Your task to perform on an android device: change notifications settings Image 0: 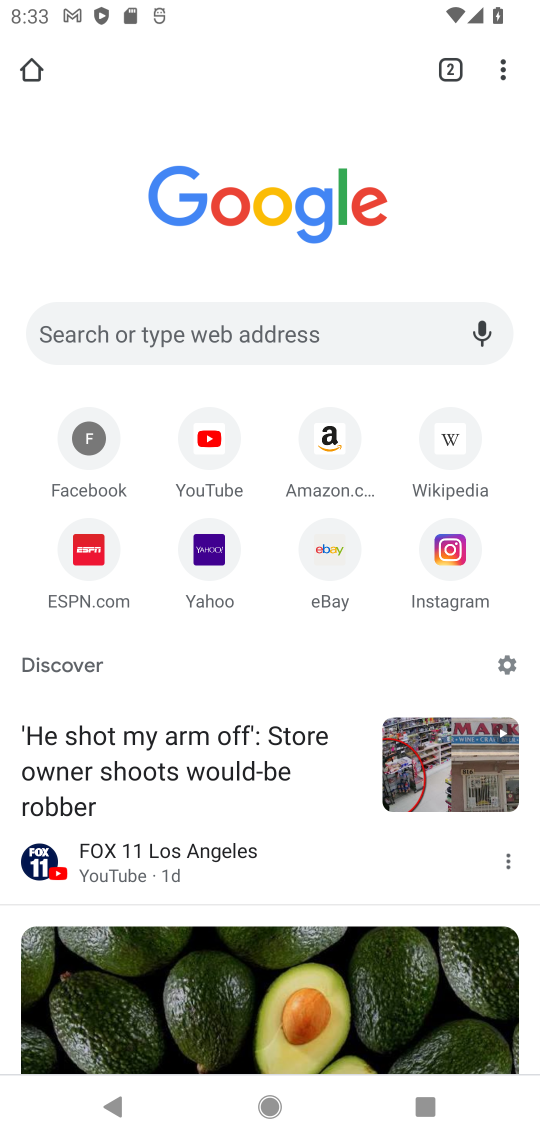
Step 0: press home button
Your task to perform on an android device: change notifications settings Image 1: 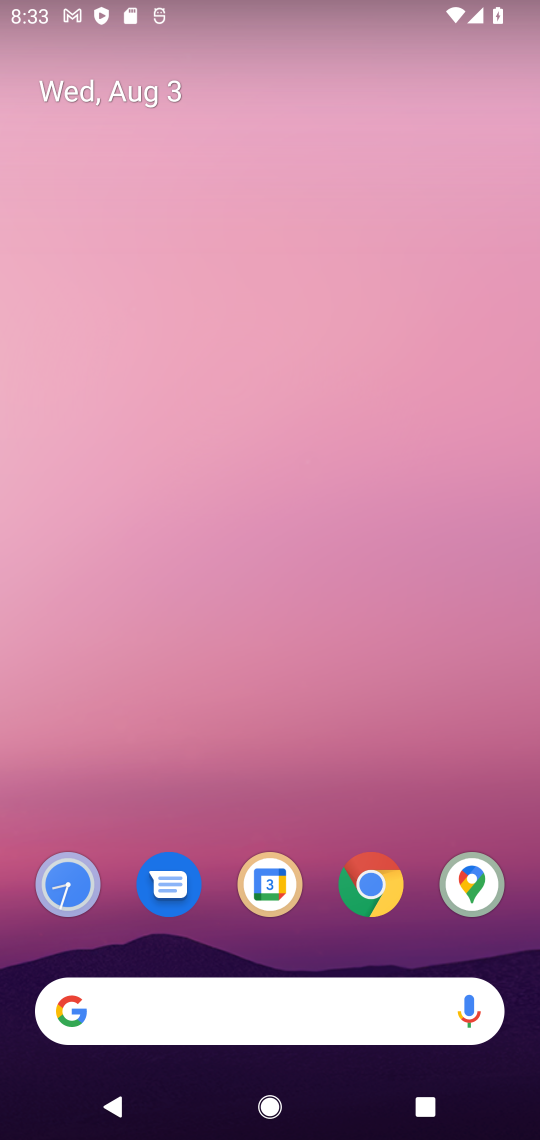
Step 1: drag from (87, 1044) to (237, 241)
Your task to perform on an android device: change notifications settings Image 2: 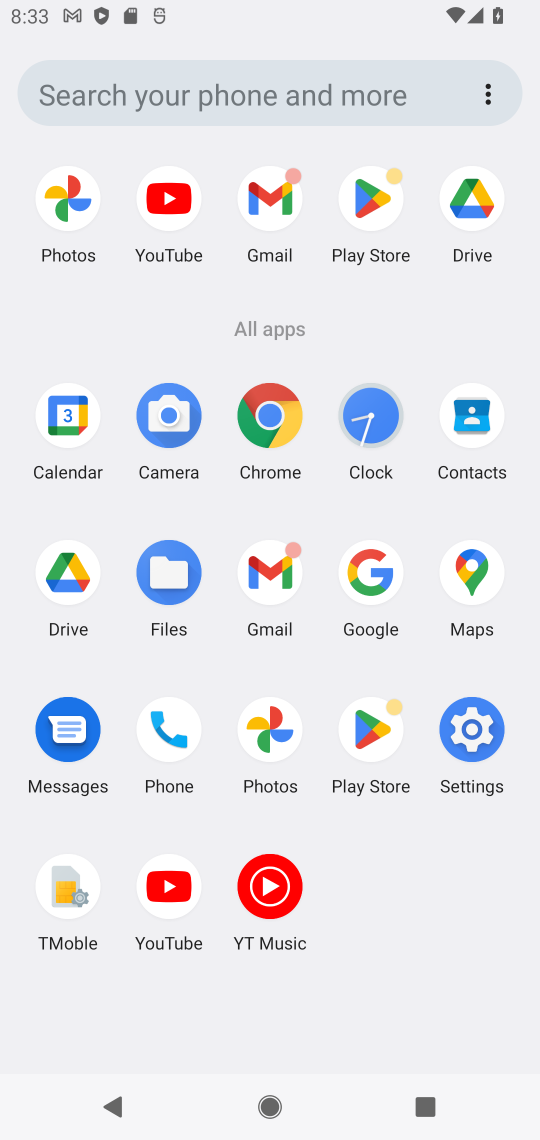
Step 2: click (472, 767)
Your task to perform on an android device: change notifications settings Image 3: 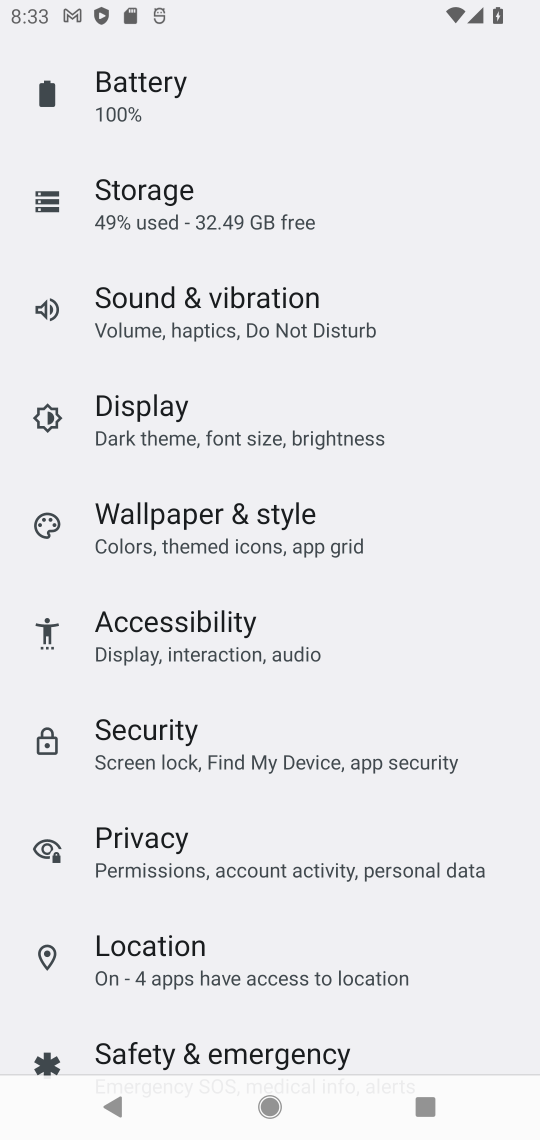
Step 3: drag from (443, 647) to (452, 132)
Your task to perform on an android device: change notifications settings Image 4: 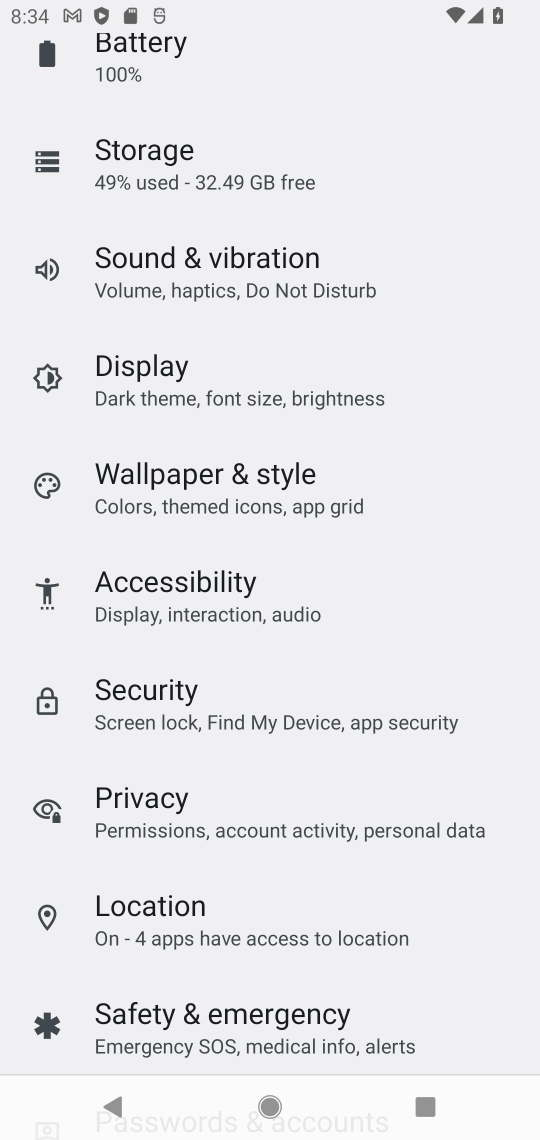
Step 4: drag from (362, 1011) to (469, 18)
Your task to perform on an android device: change notifications settings Image 5: 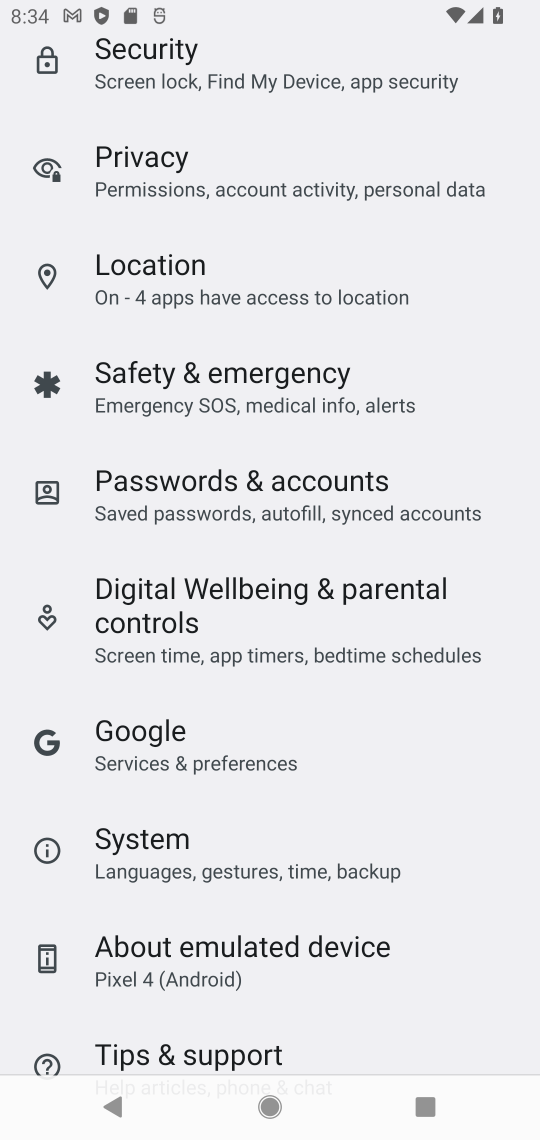
Step 5: drag from (273, 407) to (274, 855)
Your task to perform on an android device: change notifications settings Image 6: 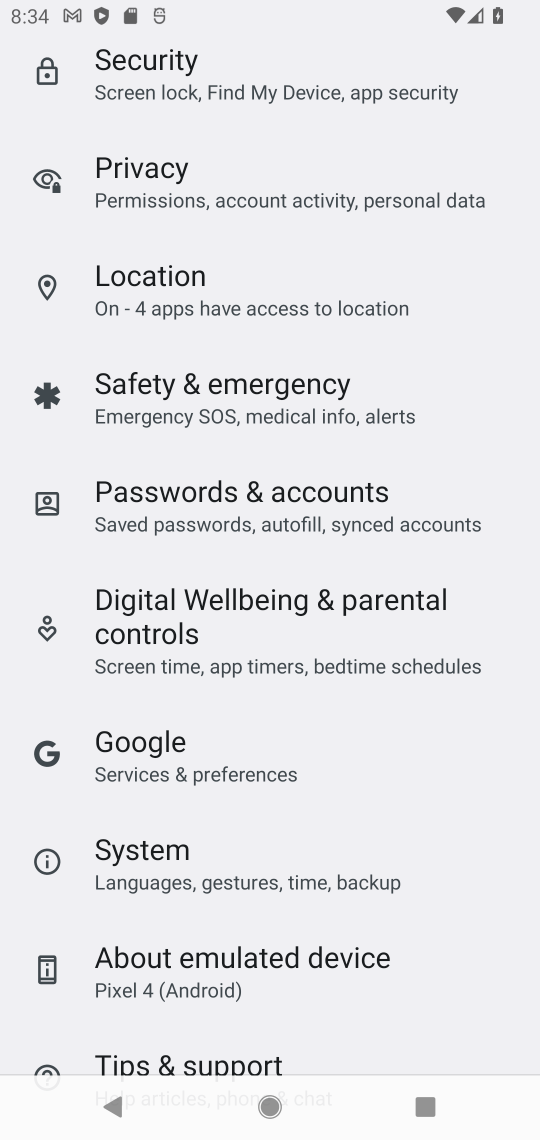
Step 6: drag from (205, 99) to (232, 642)
Your task to perform on an android device: change notifications settings Image 7: 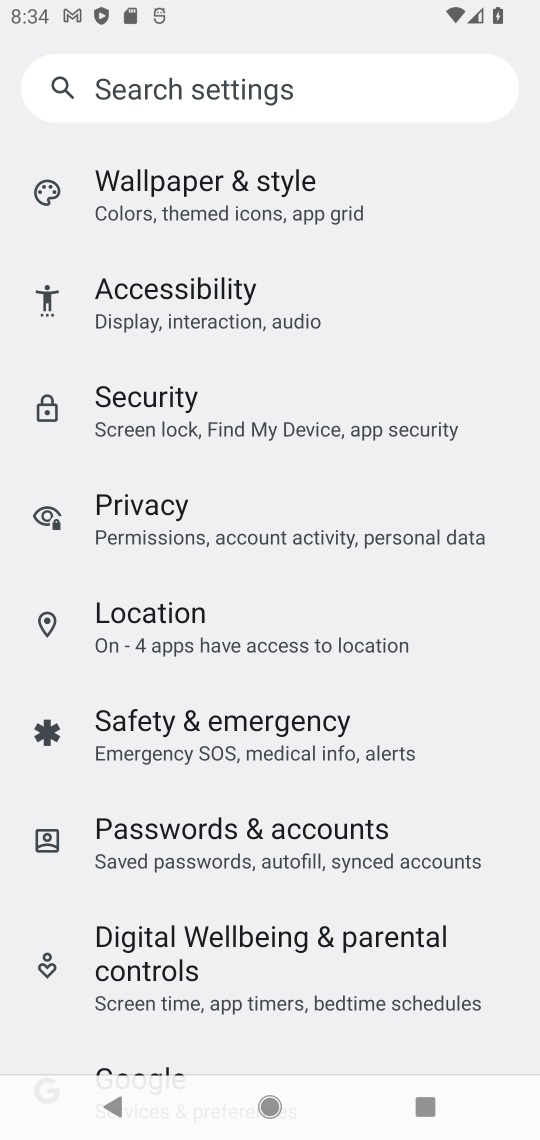
Step 7: drag from (246, 222) to (249, 797)
Your task to perform on an android device: change notifications settings Image 8: 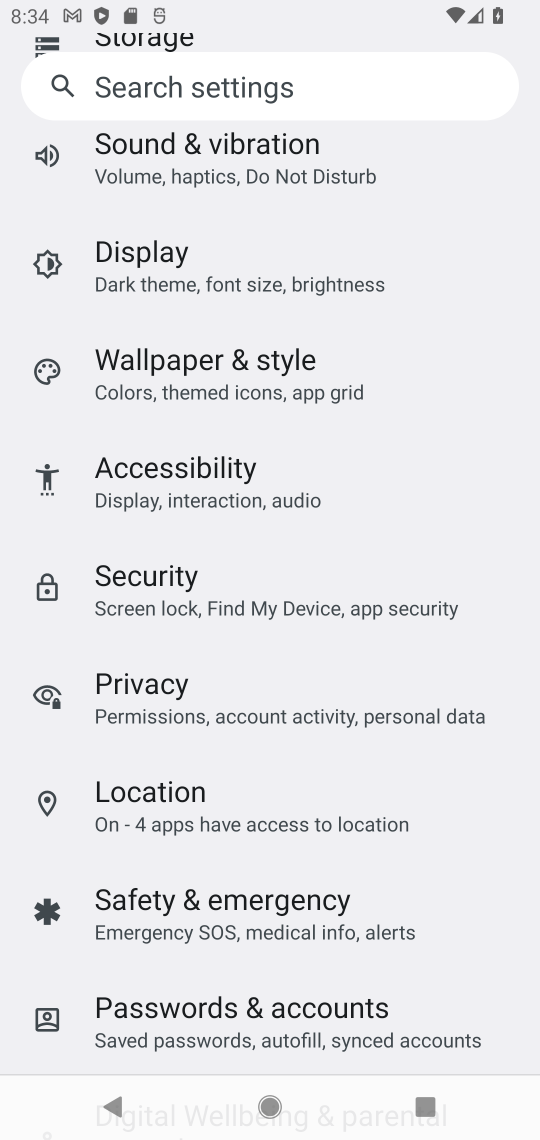
Step 8: drag from (231, 283) to (231, 818)
Your task to perform on an android device: change notifications settings Image 9: 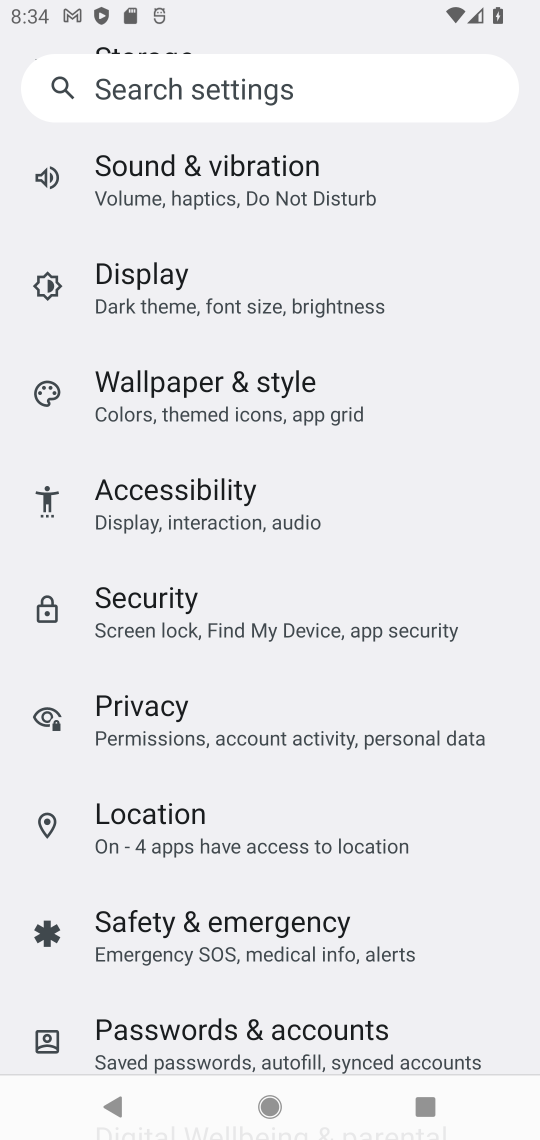
Step 9: drag from (218, 354) to (218, 1107)
Your task to perform on an android device: change notifications settings Image 10: 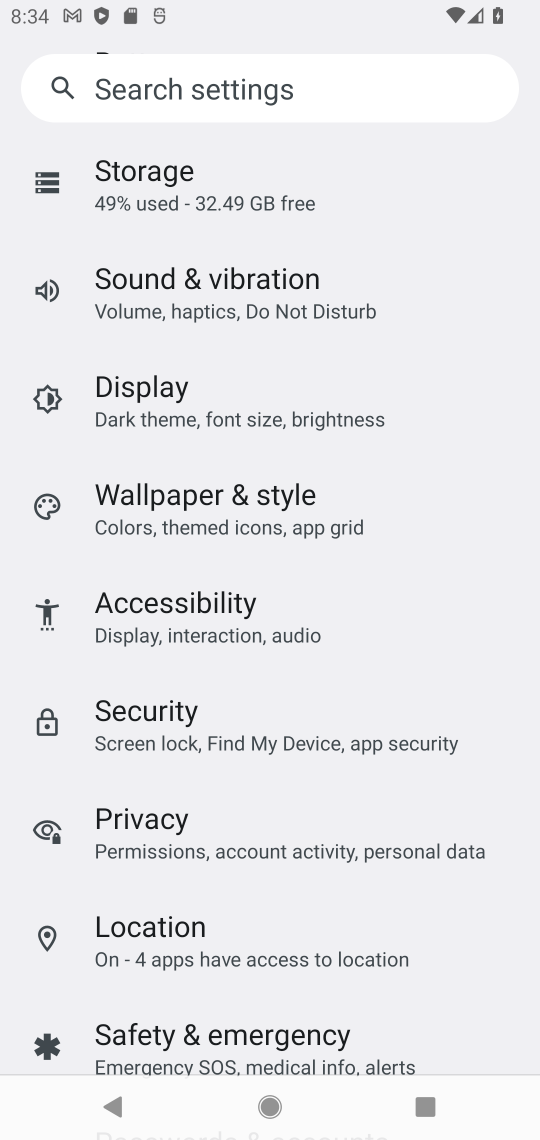
Step 10: drag from (380, 399) to (375, 911)
Your task to perform on an android device: change notifications settings Image 11: 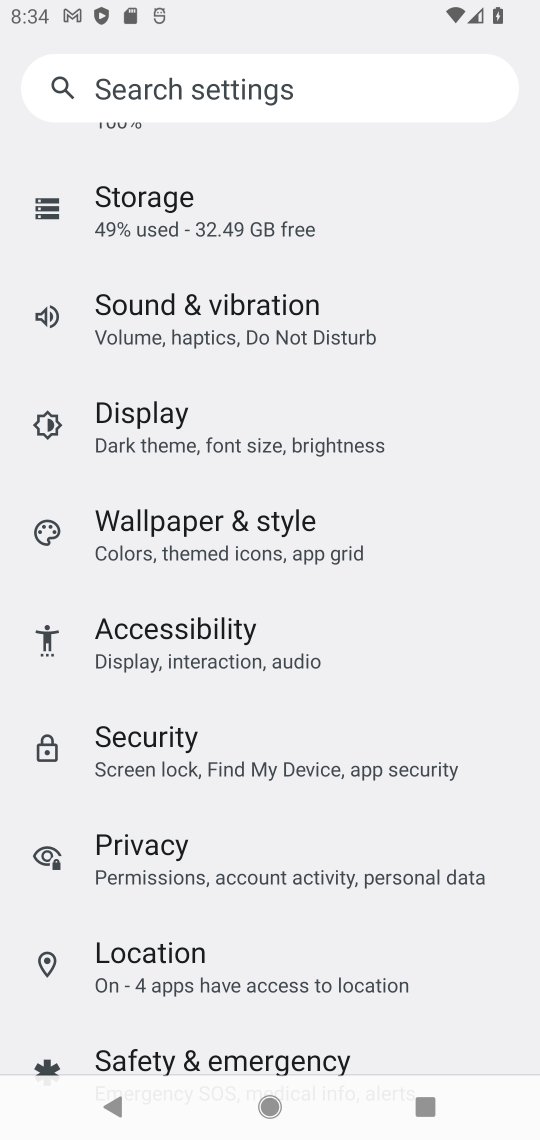
Step 11: drag from (346, 210) to (371, 972)
Your task to perform on an android device: change notifications settings Image 12: 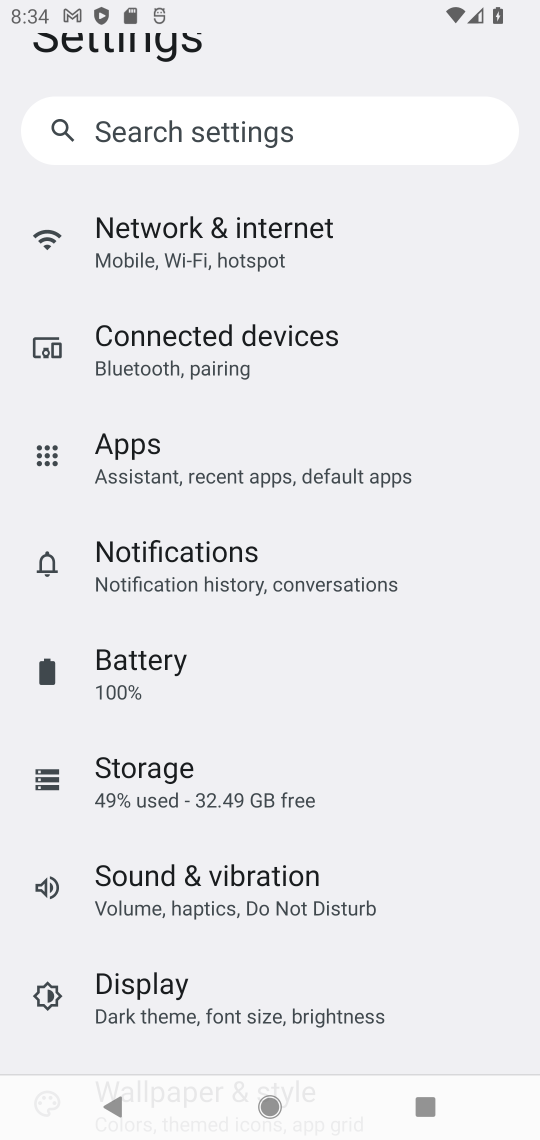
Step 12: click (282, 216)
Your task to perform on an android device: change notifications settings Image 13: 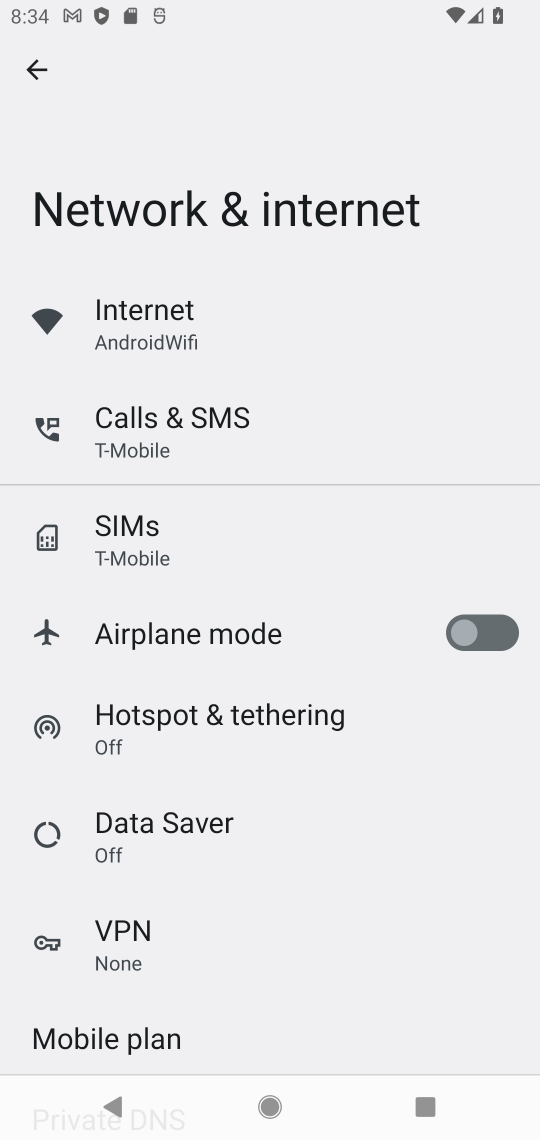
Step 13: task complete